Your task to perform on an android device: Go to Google maps Image 0: 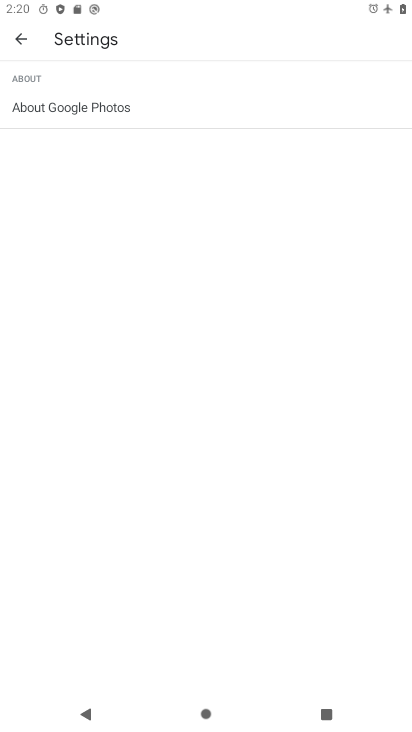
Step 0: press home button
Your task to perform on an android device: Go to Google maps Image 1: 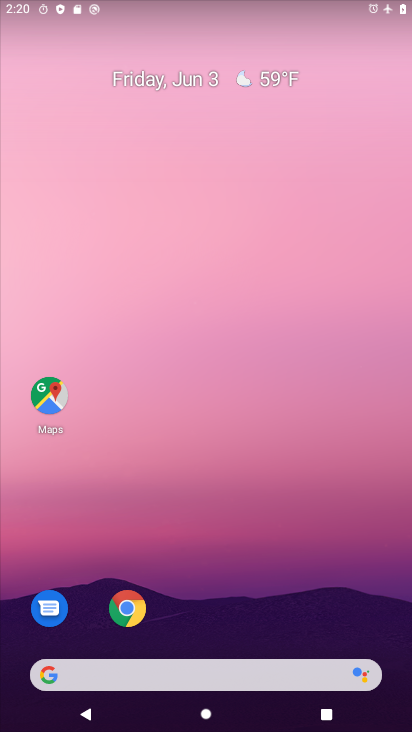
Step 1: click (43, 411)
Your task to perform on an android device: Go to Google maps Image 2: 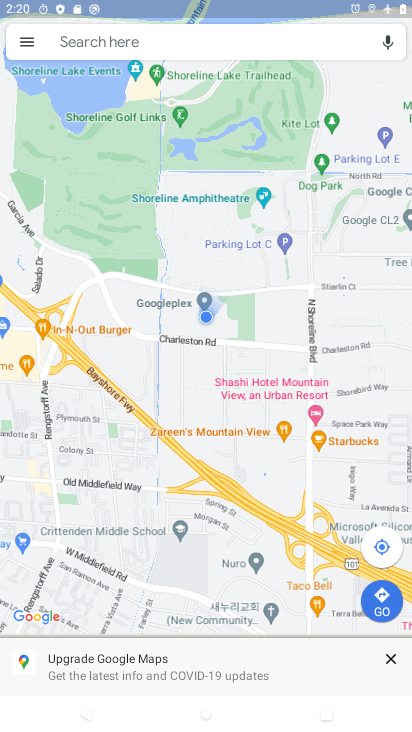
Step 2: task complete